Your task to perform on an android device: Go to network settings Image 0: 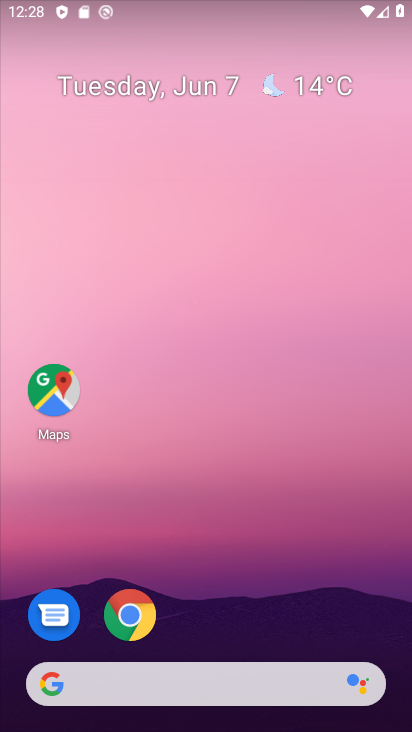
Step 0: drag from (238, 593) to (292, 122)
Your task to perform on an android device: Go to network settings Image 1: 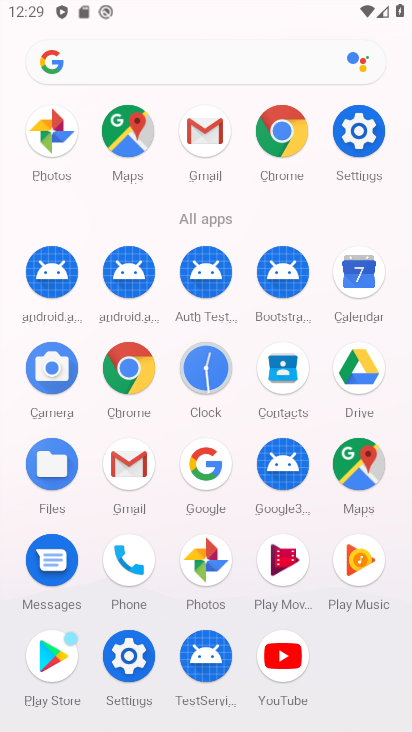
Step 1: click (359, 130)
Your task to perform on an android device: Go to network settings Image 2: 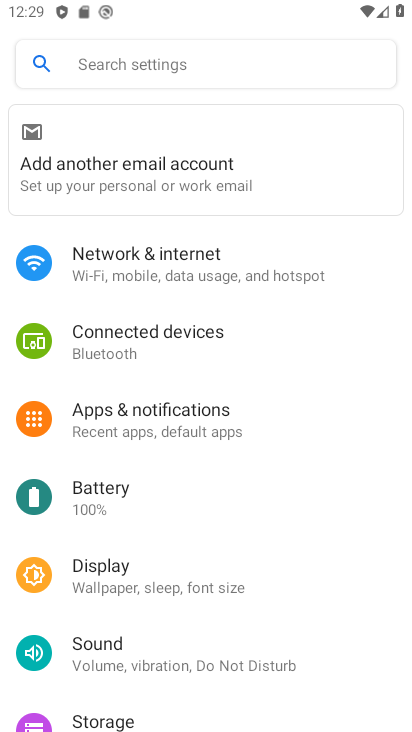
Step 2: click (177, 269)
Your task to perform on an android device: Go to network settings Image 3: 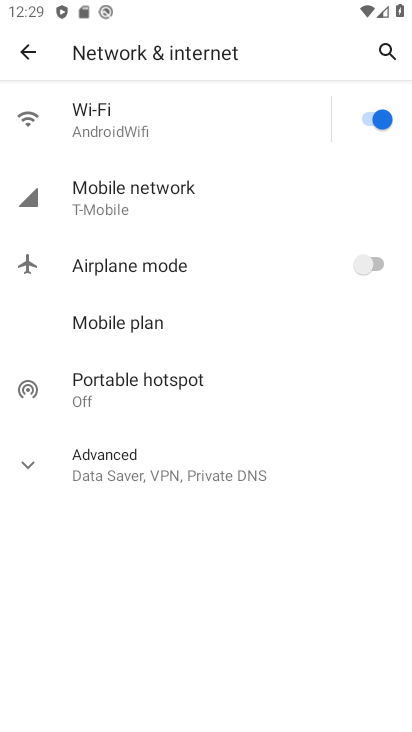
Step 3: click (121, 135)
Your task to perform on an android device: Go to network settings Image 4: 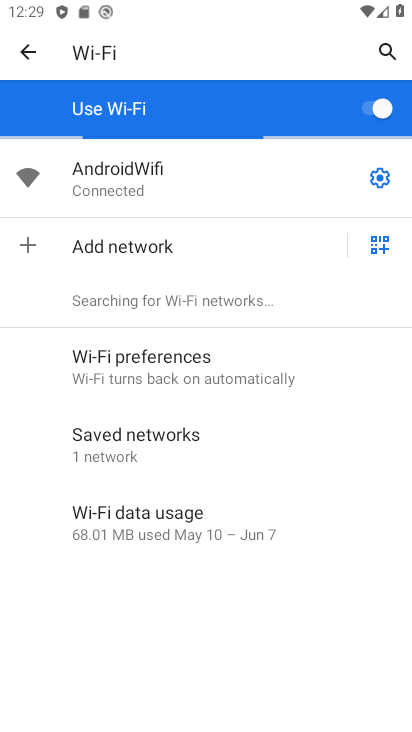
Step 4: task complete